Your task to perform on an android device: set the stopwatch Image 0: 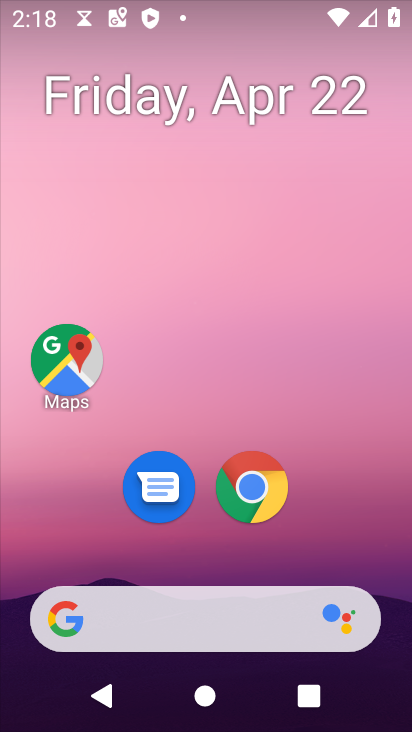
Step 0: drag from (177, 588) to (298, 129)
Your task to perform on an android device: set the stopwatch Image 1: 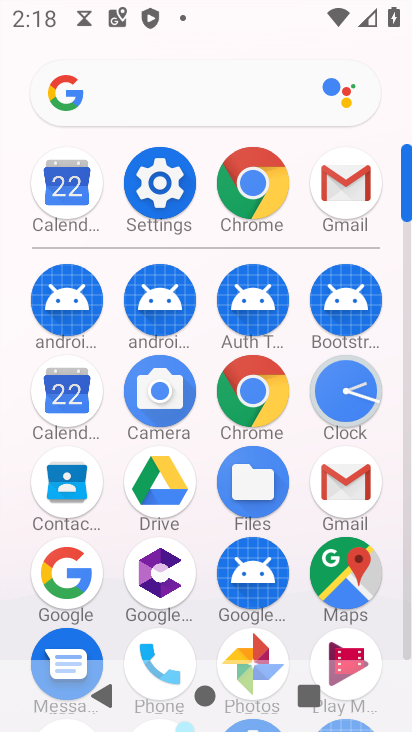
Step 1: click (341, 392)
Your task to perform on an android device: set the stopwatch Image 2: 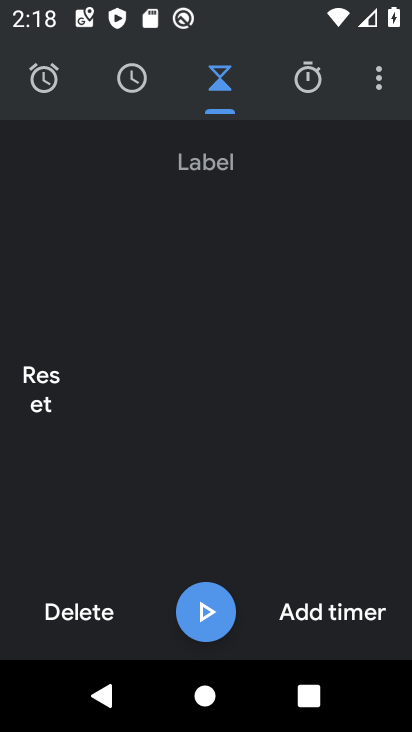
Step 2: click (303, 87)
Your task to perform on an android device: set the stopwatch Image 3: 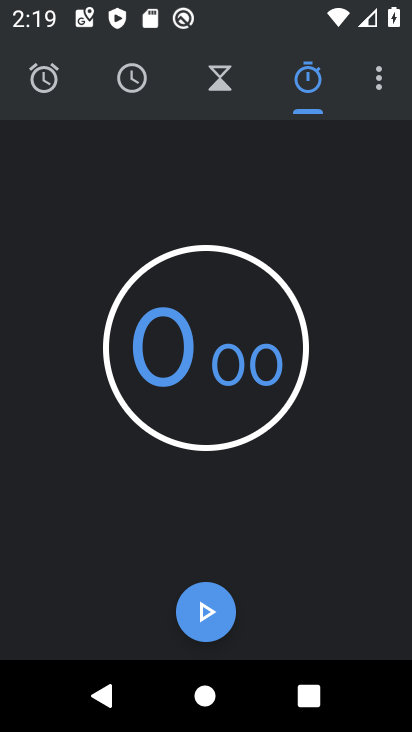
Step 3: click (194, 365)
Your task to perform on an android device: set the stopwatch Image 4: 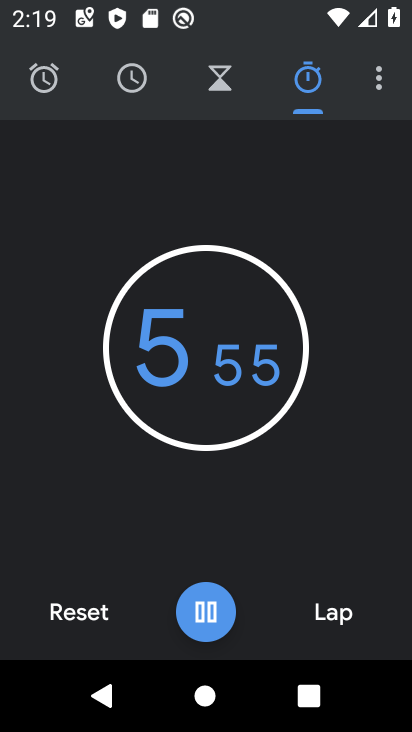
Step 4: click (208, 615)
Your task to perform on an android device: set the stopwatch Image 5: 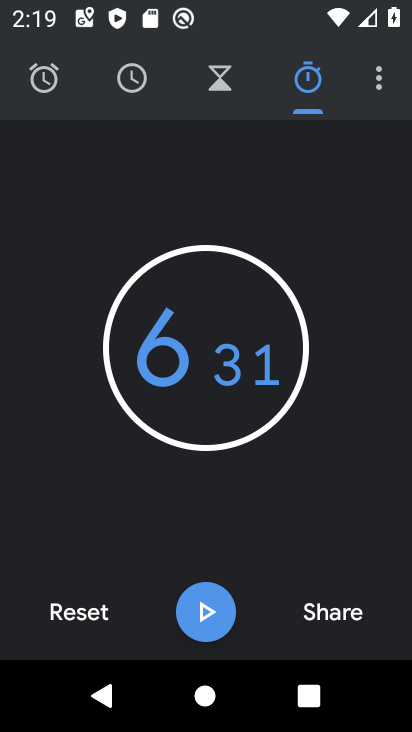
Step 5: task complete